Your task to perform on an android device: Open maps Image 0: 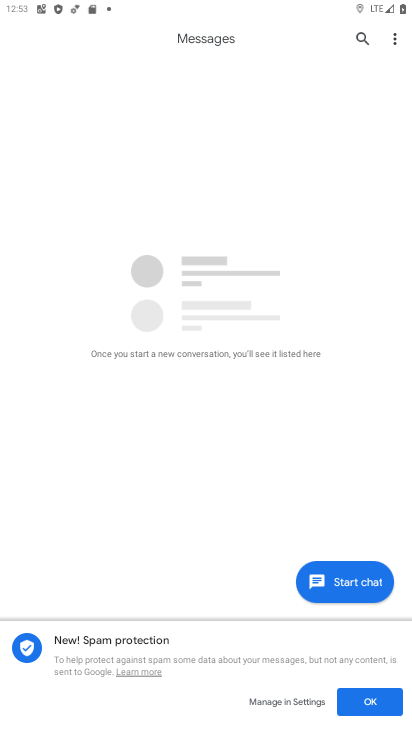
Step 0: press home button
Your task to perform on an android device: Open maps Image 1: 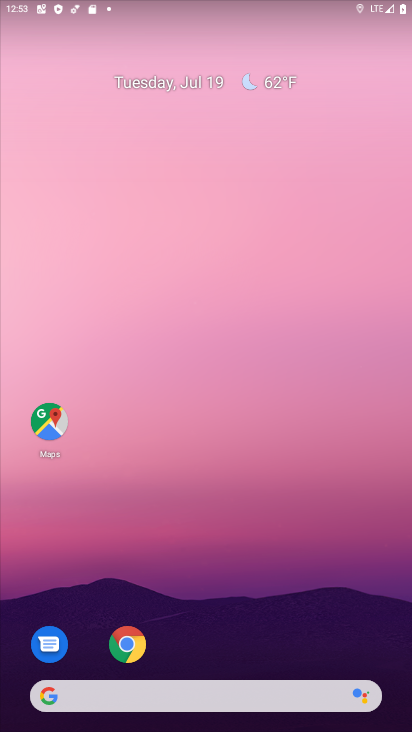
Step 1: click (47, 417)
Your task to perform on an android device: Open maps Image 2: 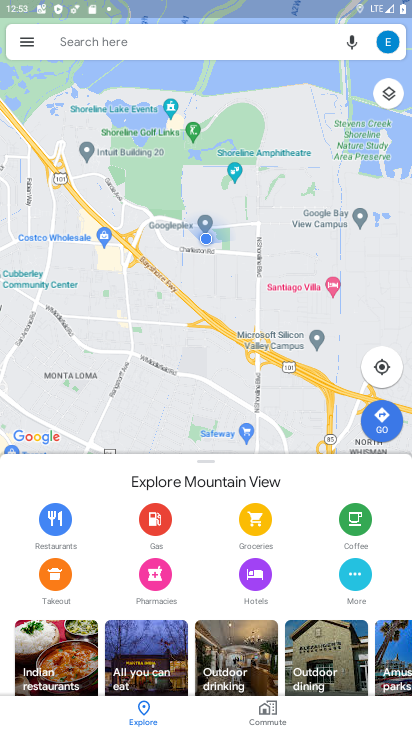
Step 2: task complete